Your task to perform on an android device: Search for flights from Mexico city to Zurich Image 0: 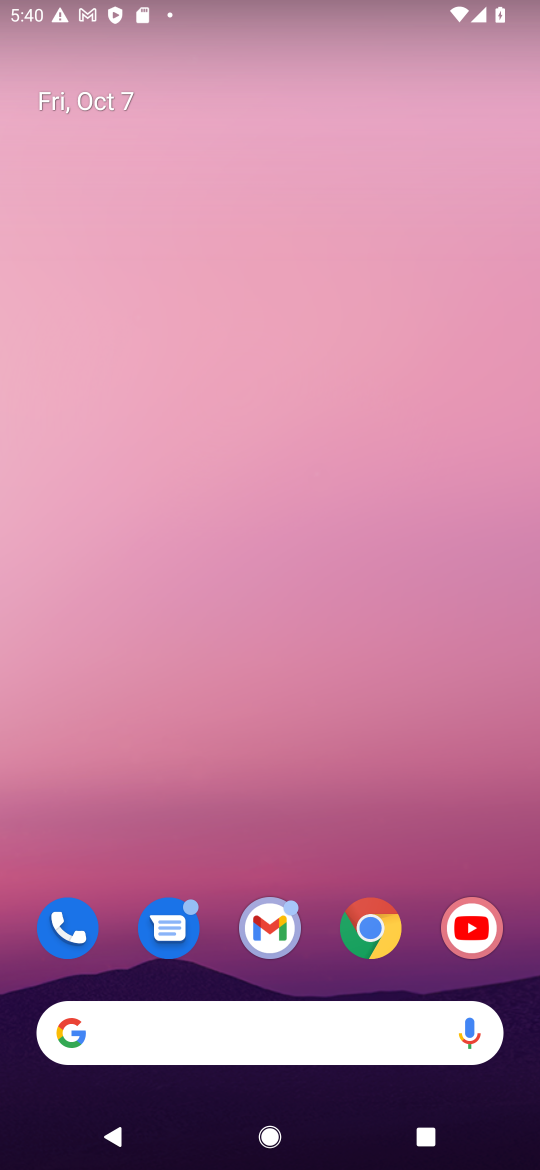
Step 0: drag from (257, 1017) to (287, 602)
Your task to perform on an android device: Search for flights from Mexico city to Zurich Image 1: 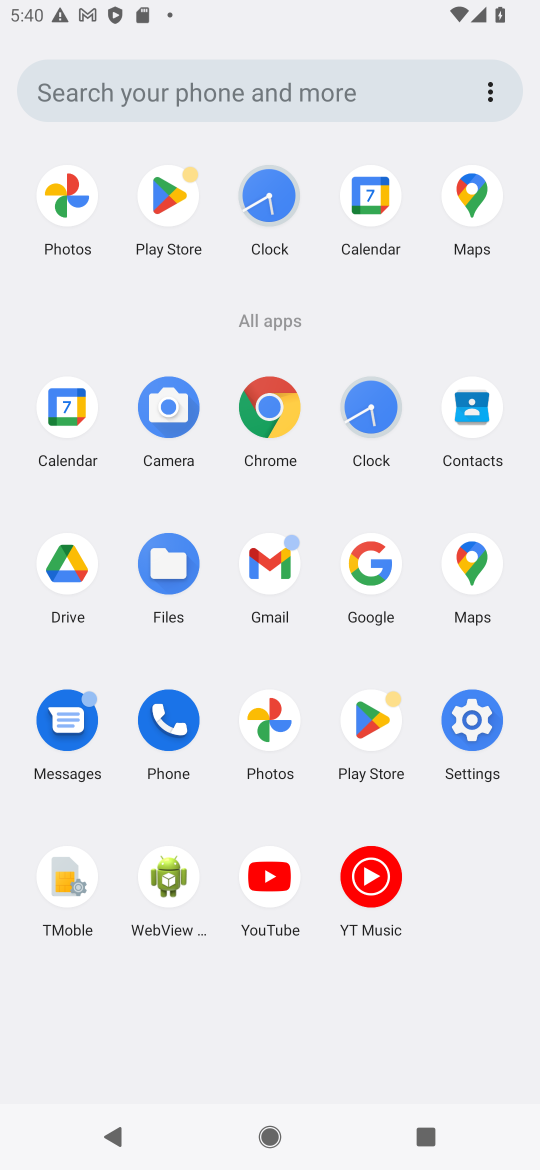
Step 1: click (277, 448)
Your task to perform on an android device: Search for flights from Mexico city to Zurich Image 2: 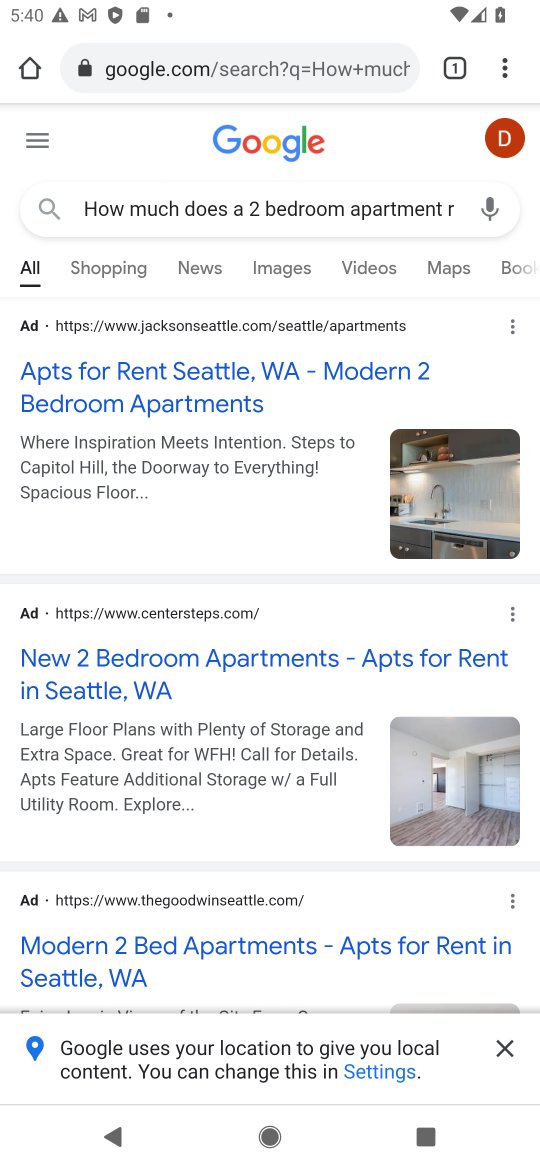
Step 2: task complete